Your task to perform on an android device: change the clock display to analog Image 0: 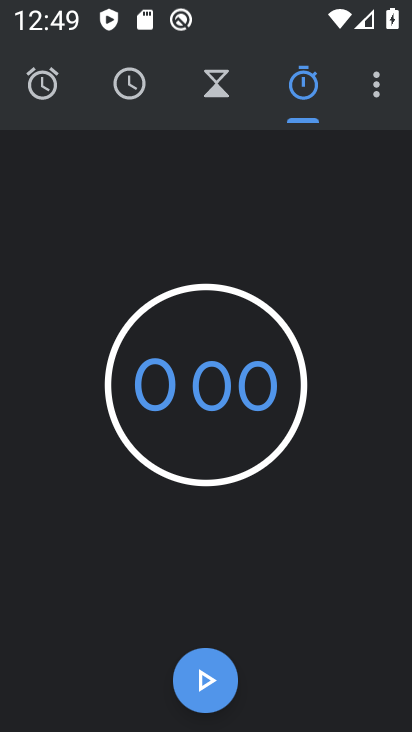
Step 0: press back button
Your task to perform on an android device: change the clock display to analog Image 1: 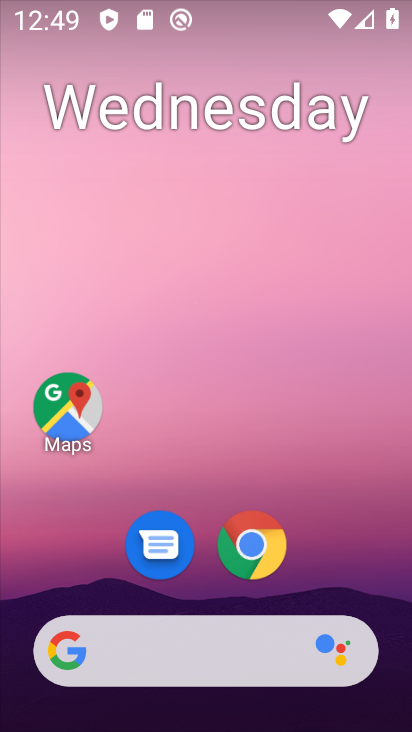
Step 1: drag from (217, 596) to (235, 219)
Your task to perform on an android device: change the clock display to analog Image 2: 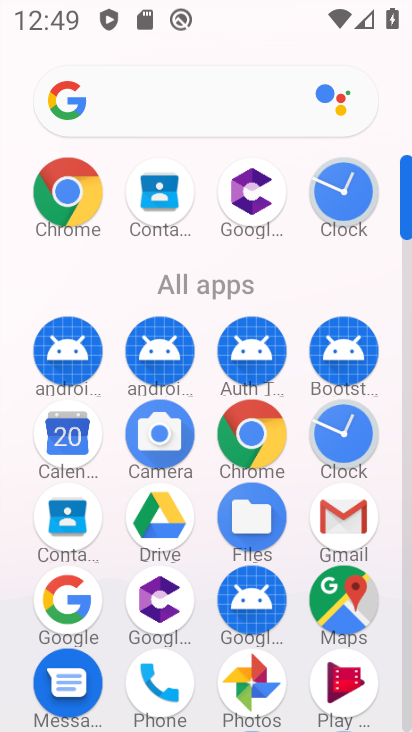
Step 2: click (345, 444)
Your task to perform on an android device: change the clock display to analog Image 3: 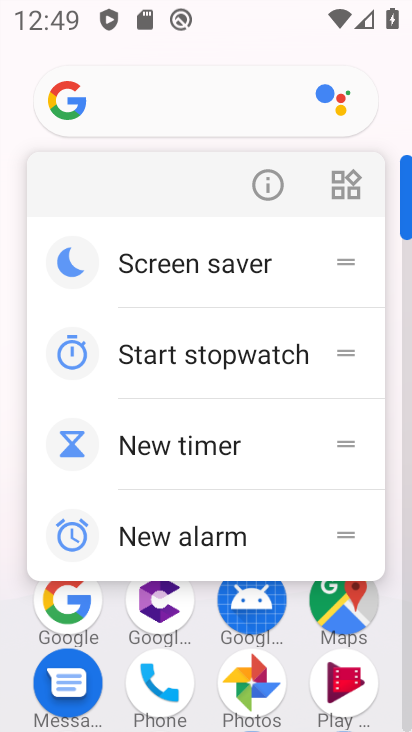
Step 3: click (256, 181)
Your task to perform on an android device: change the clock display to analog Image 4: 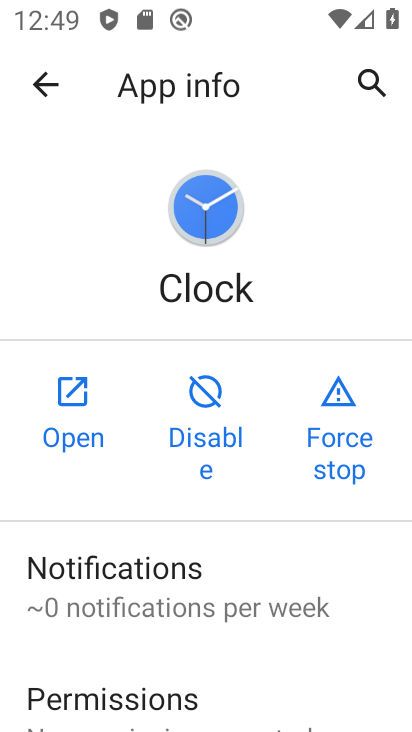
Step 4: click (85, 424)
Your task to perform on an android device: change the clock display to analog Image 5: 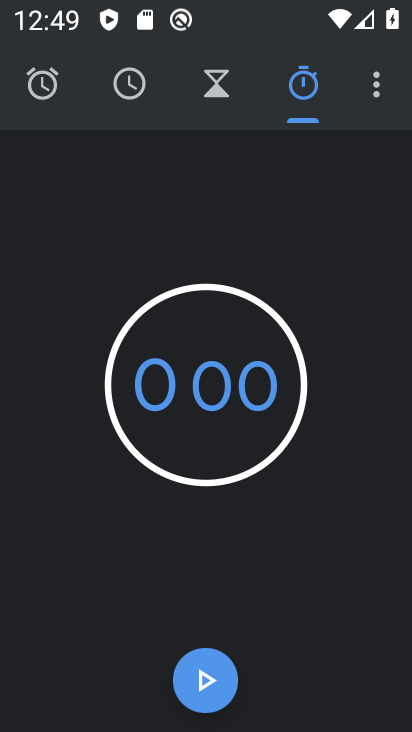
Step 5: click (371, 100)
Your task to perform on an android device: change the clock display to analog Image 6: 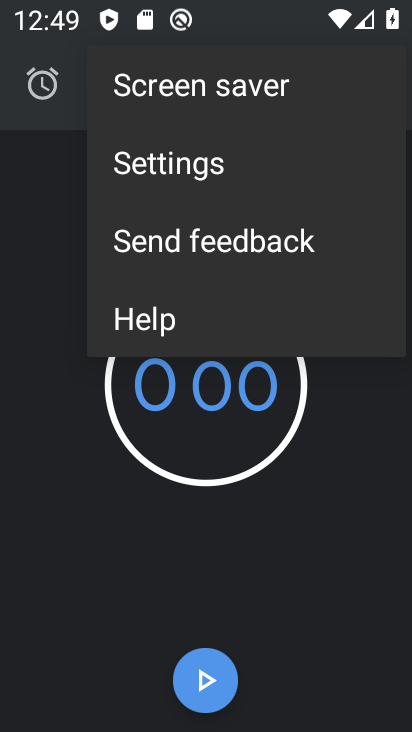
Step 6: click (227, 177)
Your task to perform on an android device: change the clock display to analog Image 7: 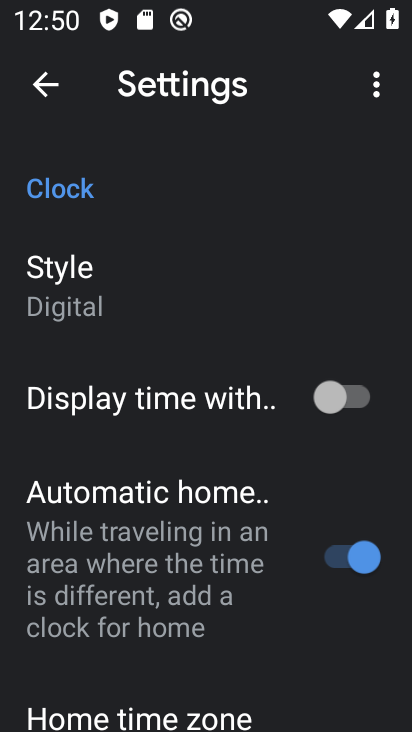
Step 7: click (105, 296)
Your task to perform on an android device: change the clock display to analog Image 8: 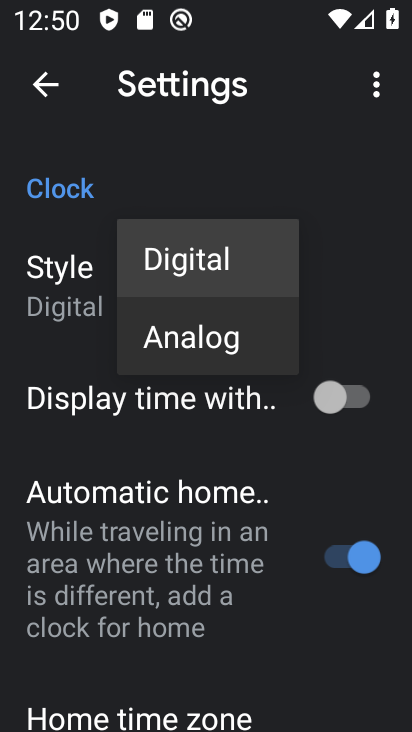
Step 8: click (152, 347)
Your task to perform on an android device: change the clock display to analog Image 9: 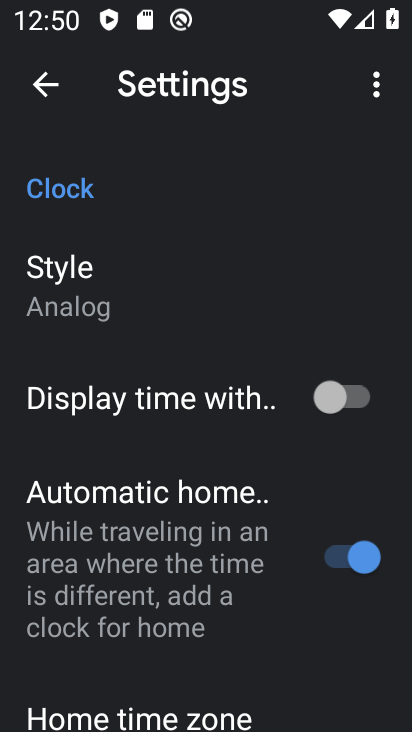
Step 9: task complete